Your task to perform on an android device: turn off improve location accuracy Image 0: 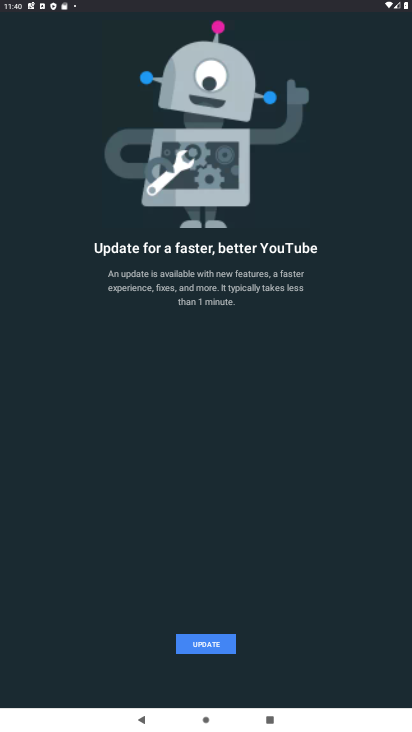
Step 0: press home button
Your task to perform on an android device: turn off improve location accuracy Image 1: 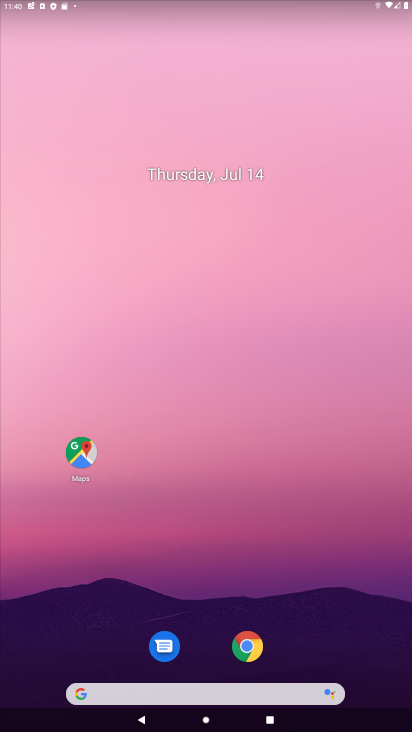
Step 1: drag from (188, 627) to (154, 323)
Your task to perform on an android device: turn off improve location accuracy Image 2: 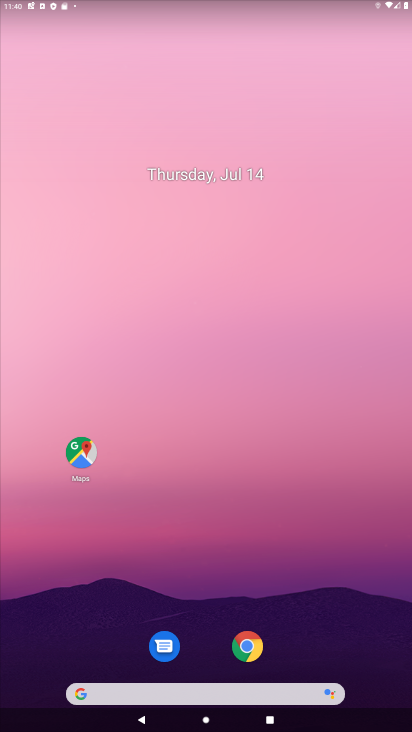
Step 2: drag from (208, 618) to (199, 95)
Your task to perform on an android device: turn off improve location accuracy Image 3: 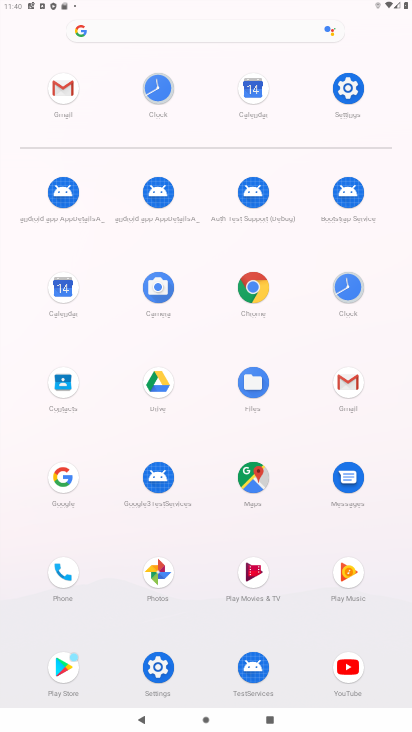
Step 3: click (363, 87)
Your task to perform on an android device: turn off improve location accuracy Image 4: 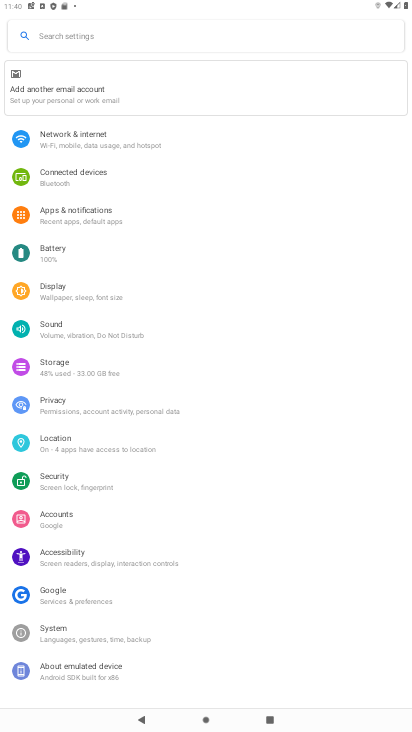
Step 4: click (73, 446)
Your task to perform on an android device: turn off improve location accuracy Image 5: 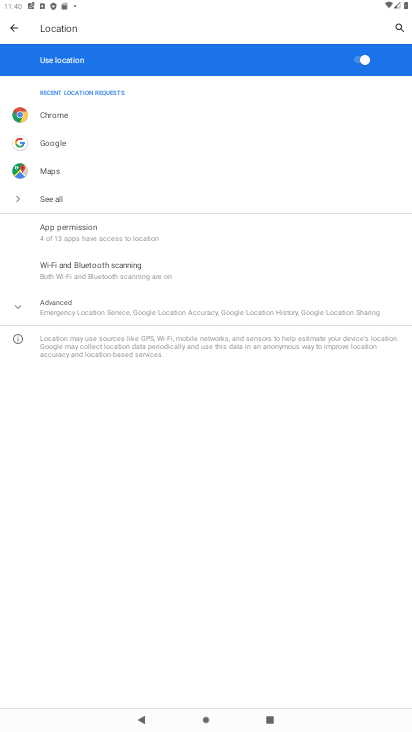
Step 5: click (104, 322)
Your task to perform on an android device: turn off improve location accuracy Image 6: 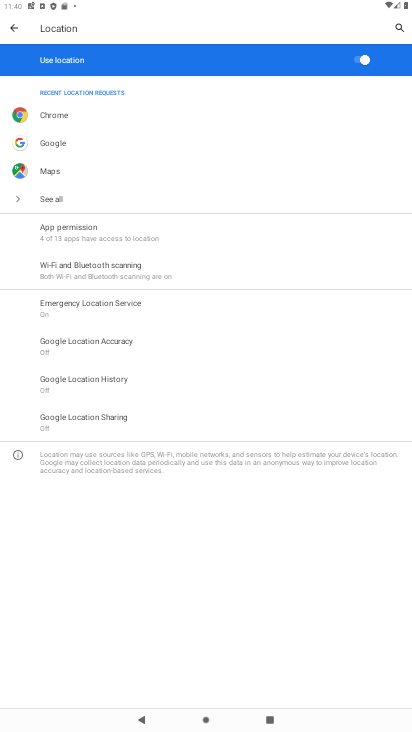
Step 6: click (105, 348)
Your task to perform on an android device: turn off improve location accuracy Image 7: 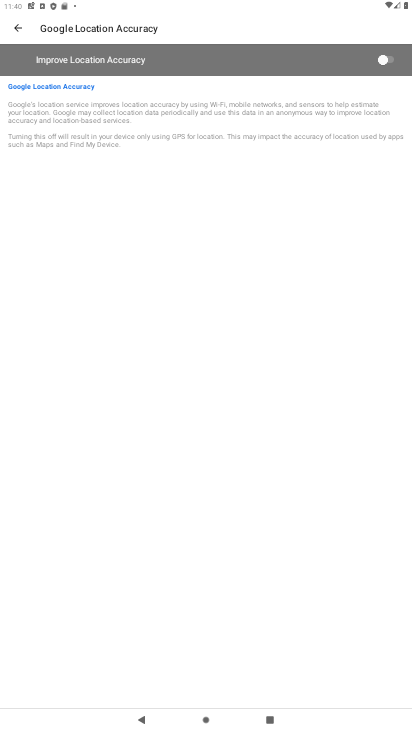
Step 7: task complete